Your task to perform on an android device: Search for a new phone on Amazon. Image 0: 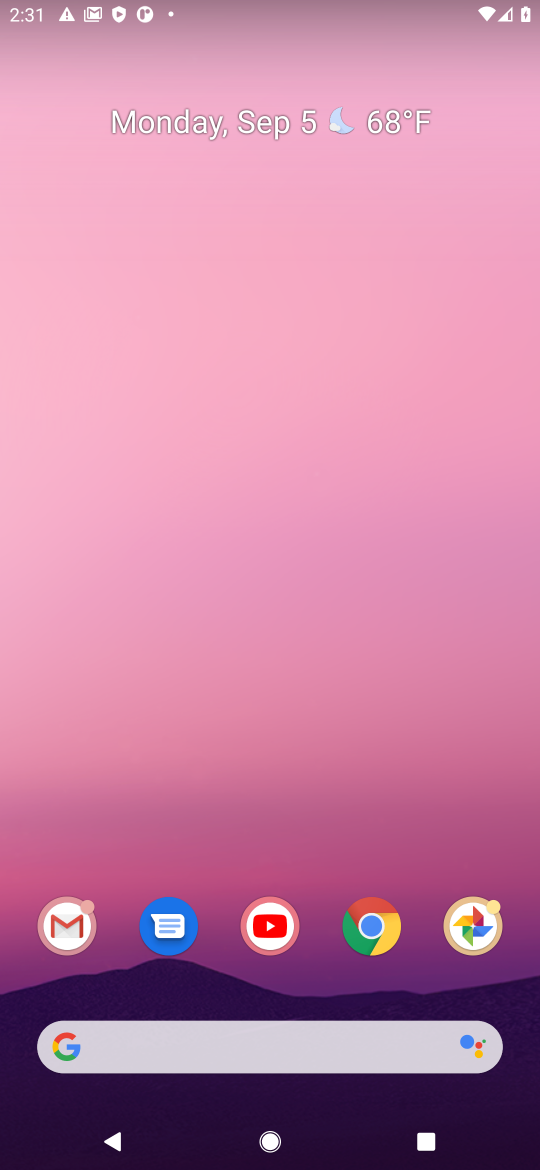
Step 0: click (366, 929)
Your task to perform on an android device: Search for a new phone on Amazon. Image 1: 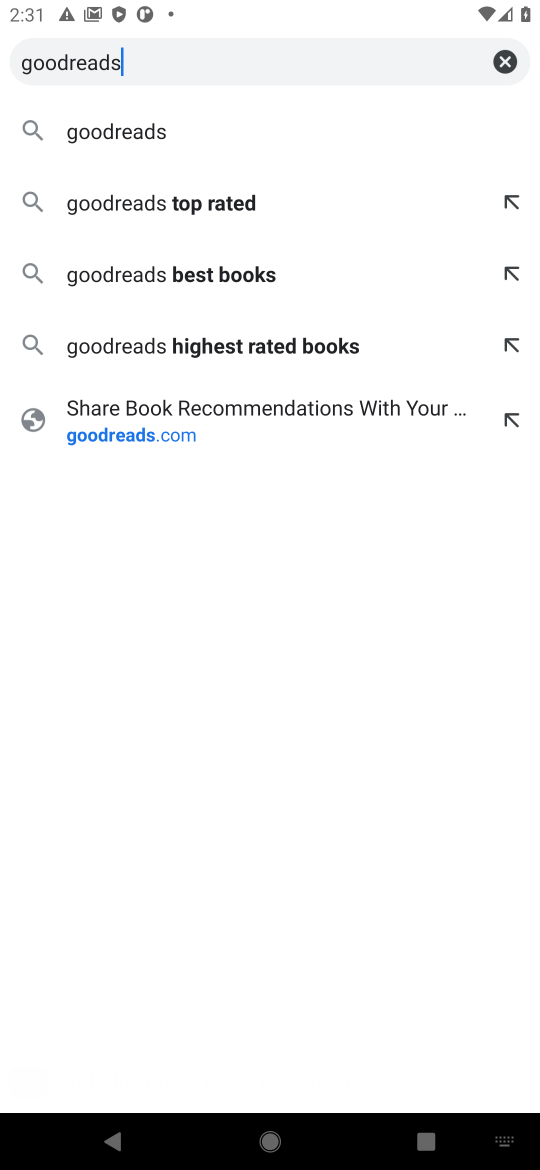
Step 1: click (506, 66)
Your task to perform on an android device: Search for a new phone on Amazon. Image 2: 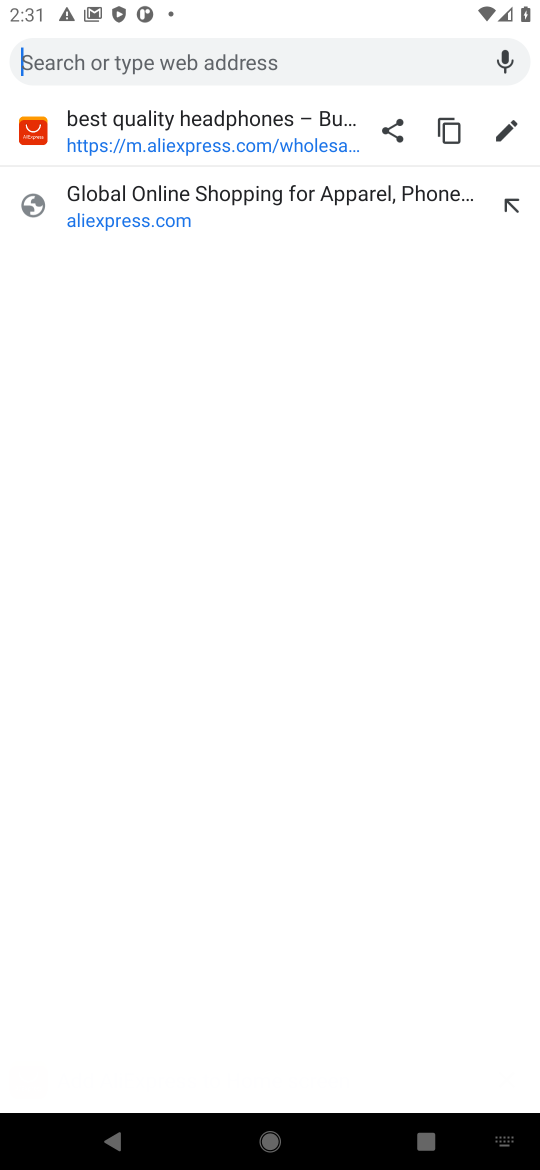
Step 2: type "amazon"
Your task to perform on an android device: Search for a new phone on Amazon. Image 3: 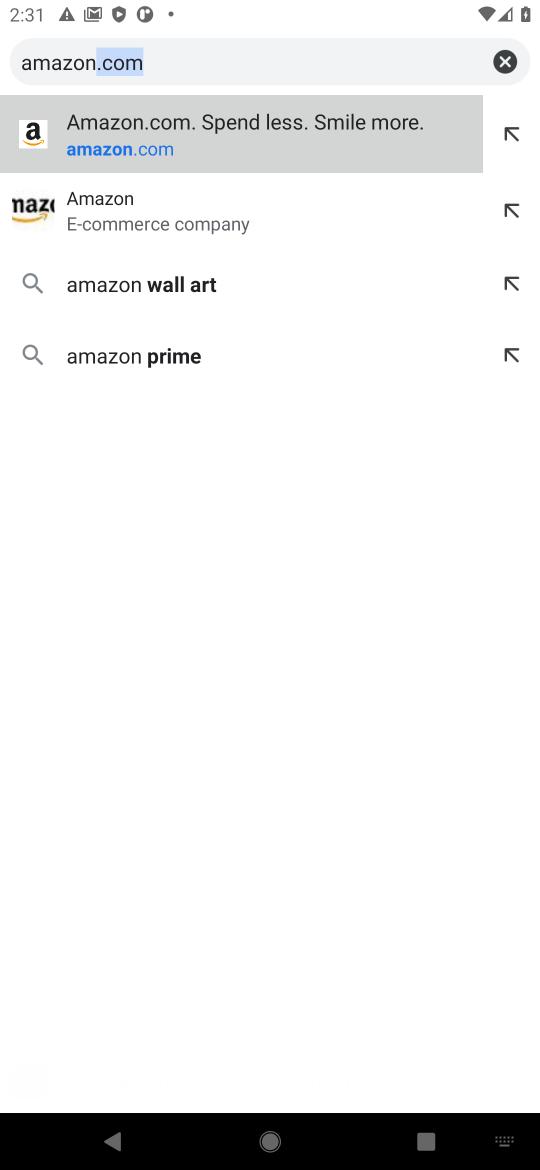
Step 3: click (278, 128)
Your task to perform on an android device: Search for a new phone on Amazon. Image 4: 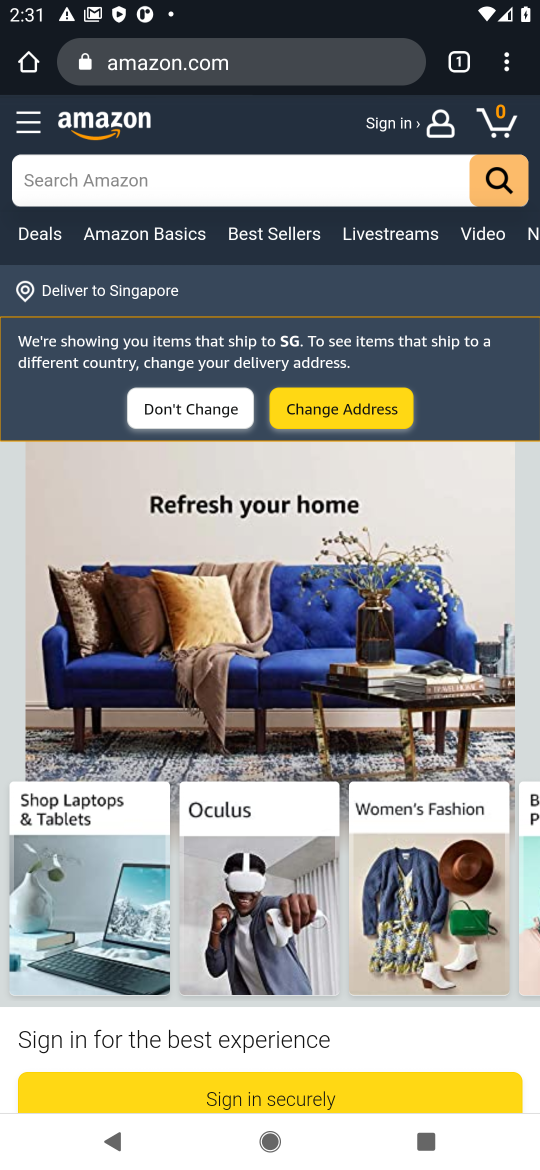
Step 4: click (215, 188)
Your task to perform on an android device: Search for a new phone on Amazon. Image 5: 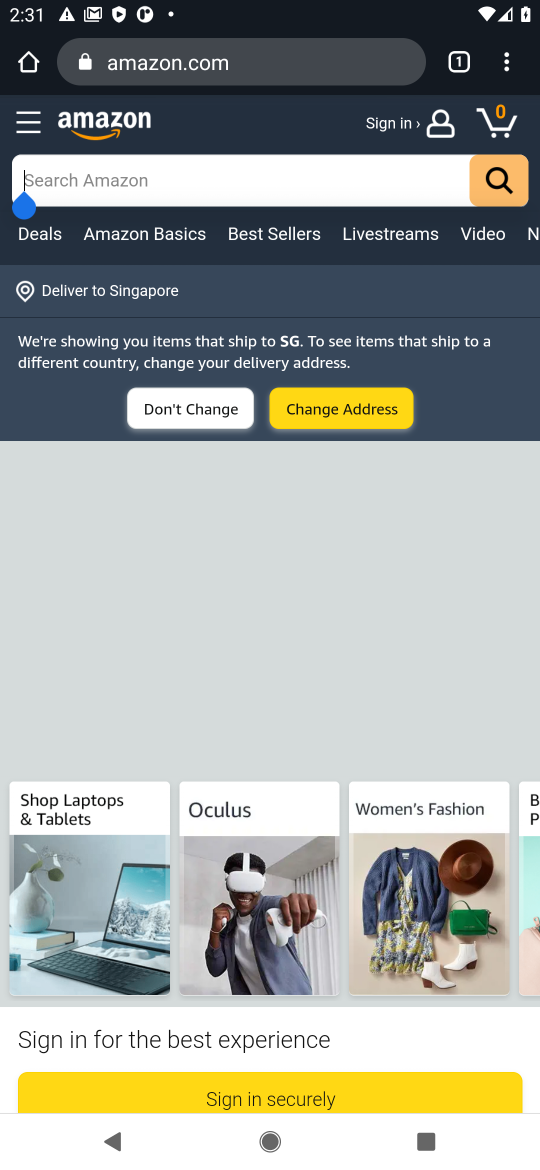
Step 5: click (202, 189)
Your task to perform on an android device: Search for a new phone on Amazon. Image 6: 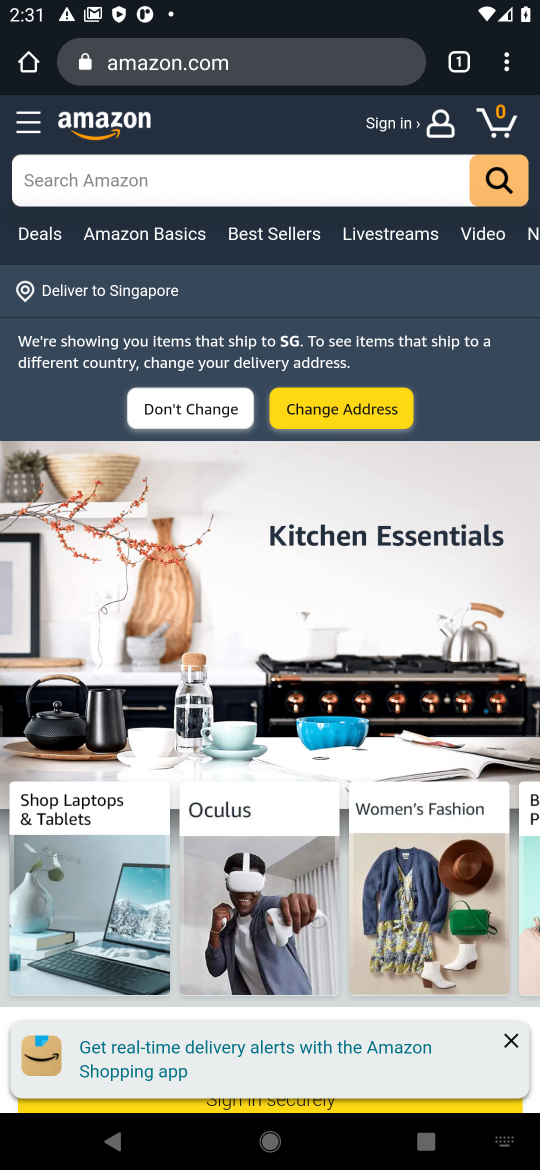
Step 6: click (173, 175)
Your task to perform on an android device: Search for a new phone on Amazon. Image 7: 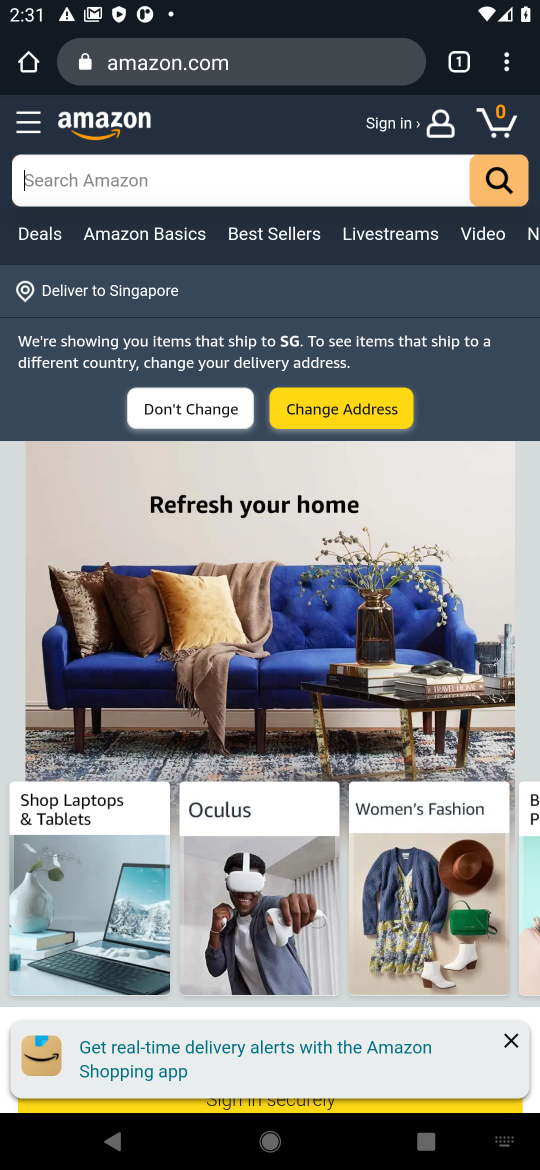
Step 7: type "new phone"
Your task to perform on an android device: Search for a new phone on Amazon. Image 8: 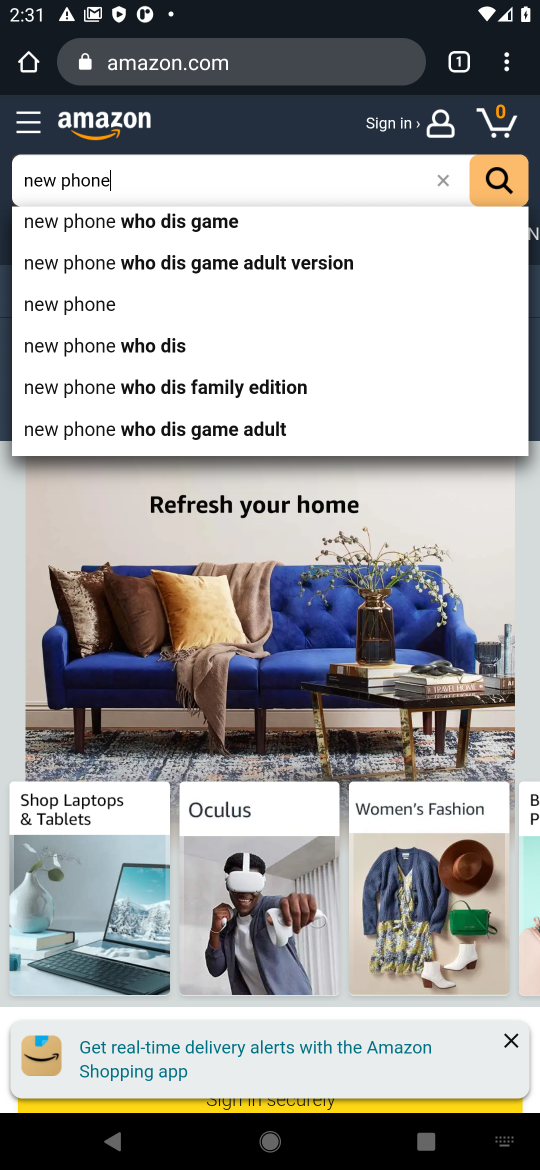
Step 8: click (77, 308)
Your task to perform on an android device: Search for a new phone on Amazon. Image 9: 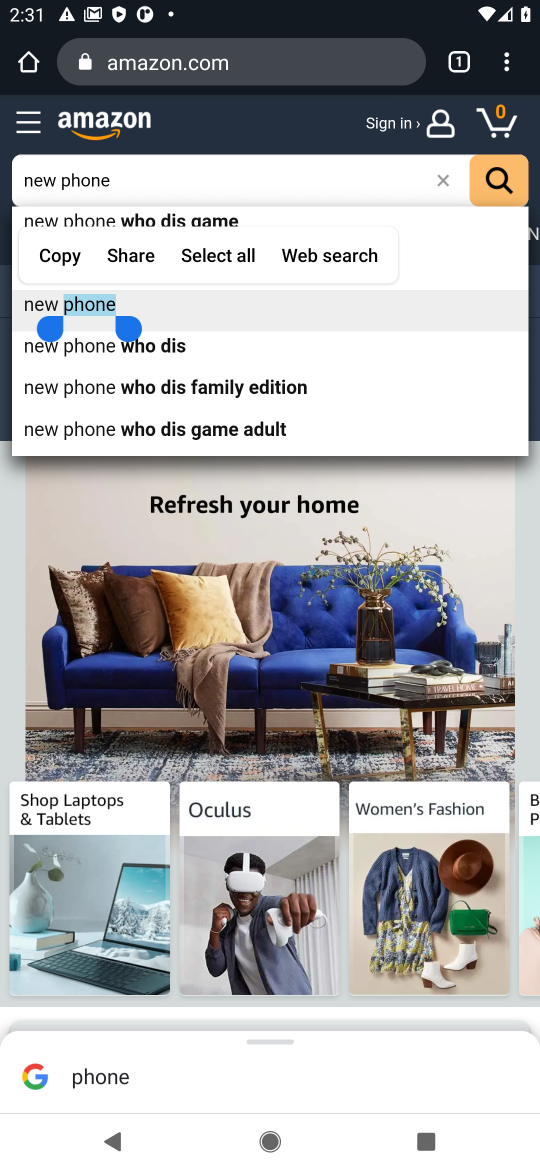
Step 9: task complete